Your task to perform on an android device: turn vacation reply on in the gmail app Image 0: 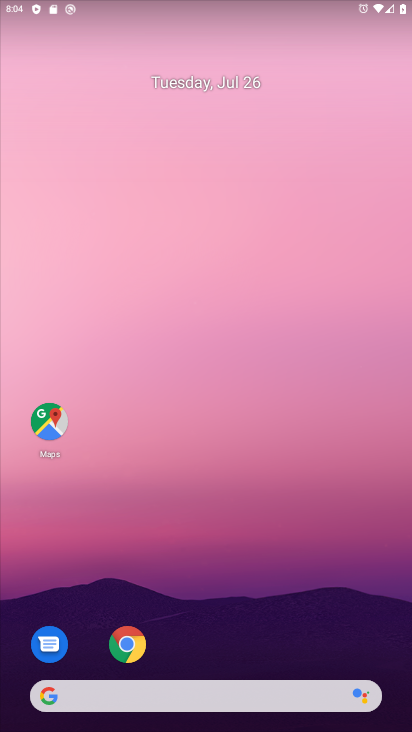
Step 0: drag from (198, 621) to (234, 177)
Your task to perform on an android device: turn vacation reply on in the gmail app Image 1: 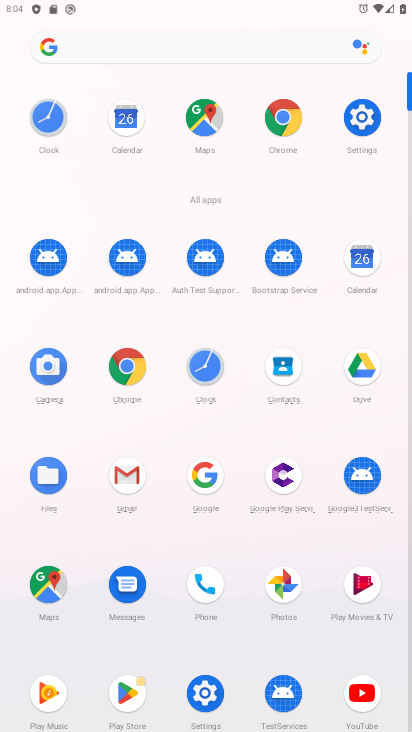
Step 1: click (120, 467)
Your task to perform on an android device: turn vacation reply on in the gmail app Image 2: 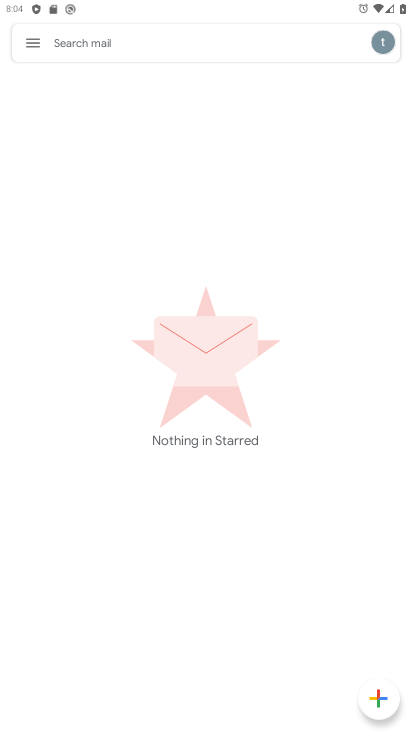
Step 2: click (29, 37)
Your task to perform on an android device: turn vacation reply on in the gmail app Image 3: 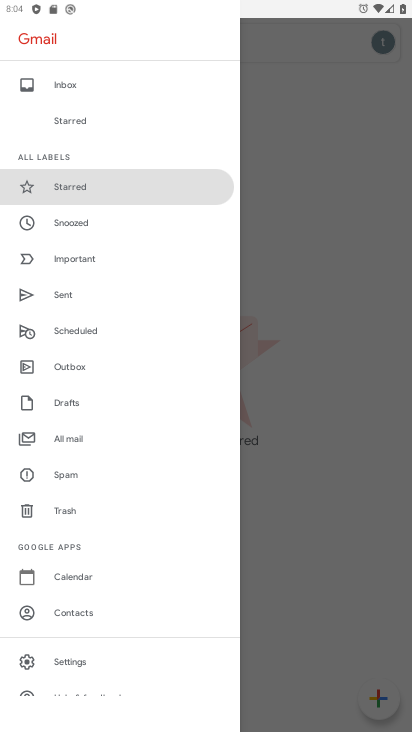
Step 3: click (67, 661)
Your task to perform on an android device: turn vacation reply on in the gmail app Image 4: 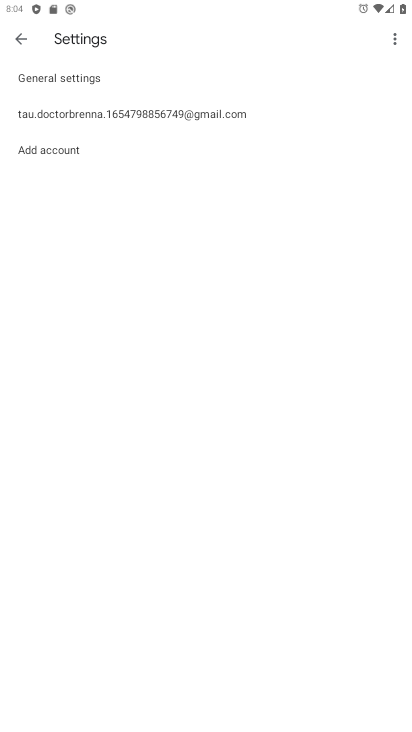
Step 4: click (74, 105)
Your task to perform on an android device: turn vacation reply on in the gmail app Image 5: 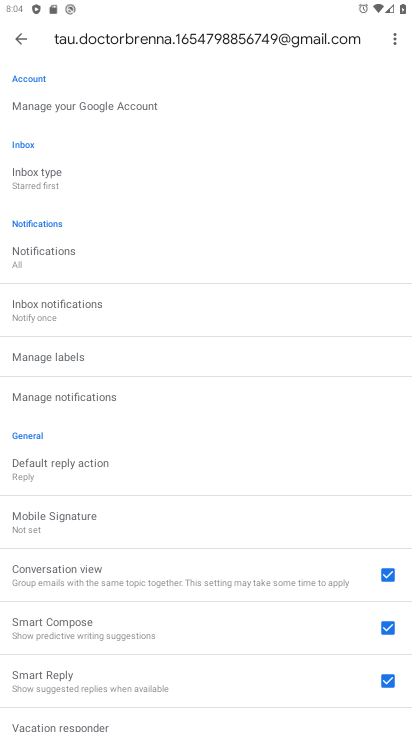
Step 5: drag from (56, 694) to (105, 267)
Your task to perform on an android device: turn vacation reply on in the gmail app Image 6: 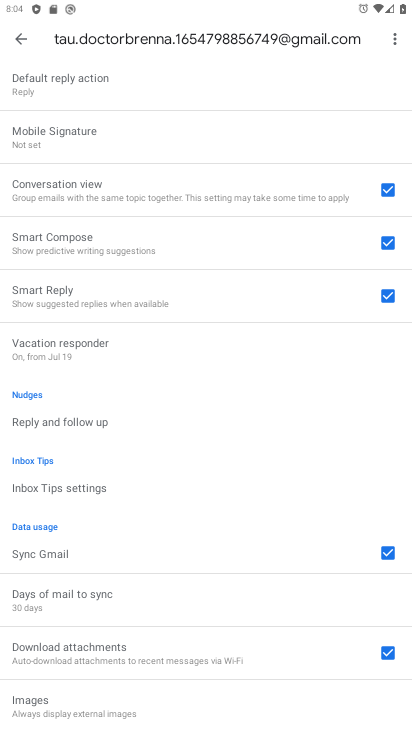
Step 6: click (87, 336)
Your task to perform on an android device: turn vacation reply on in the gmail app Image 7: 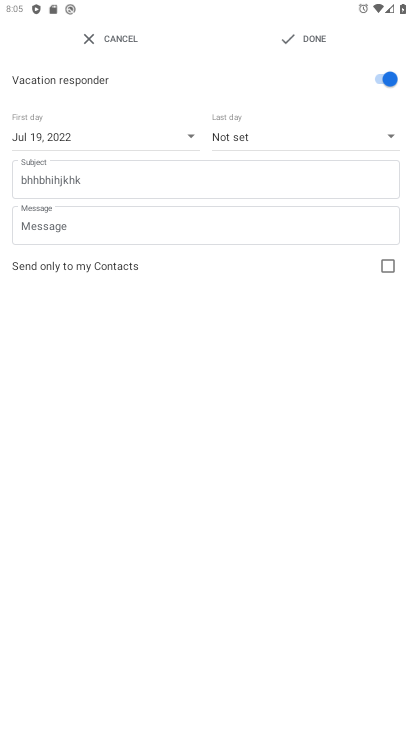
Step 7: task complete